Your task to perform on an android device: Clear the shopping cart on newegg.com. Search for razer blade on newegg.com, select the first entry, add it to the cart, then select checkout. Image 0: 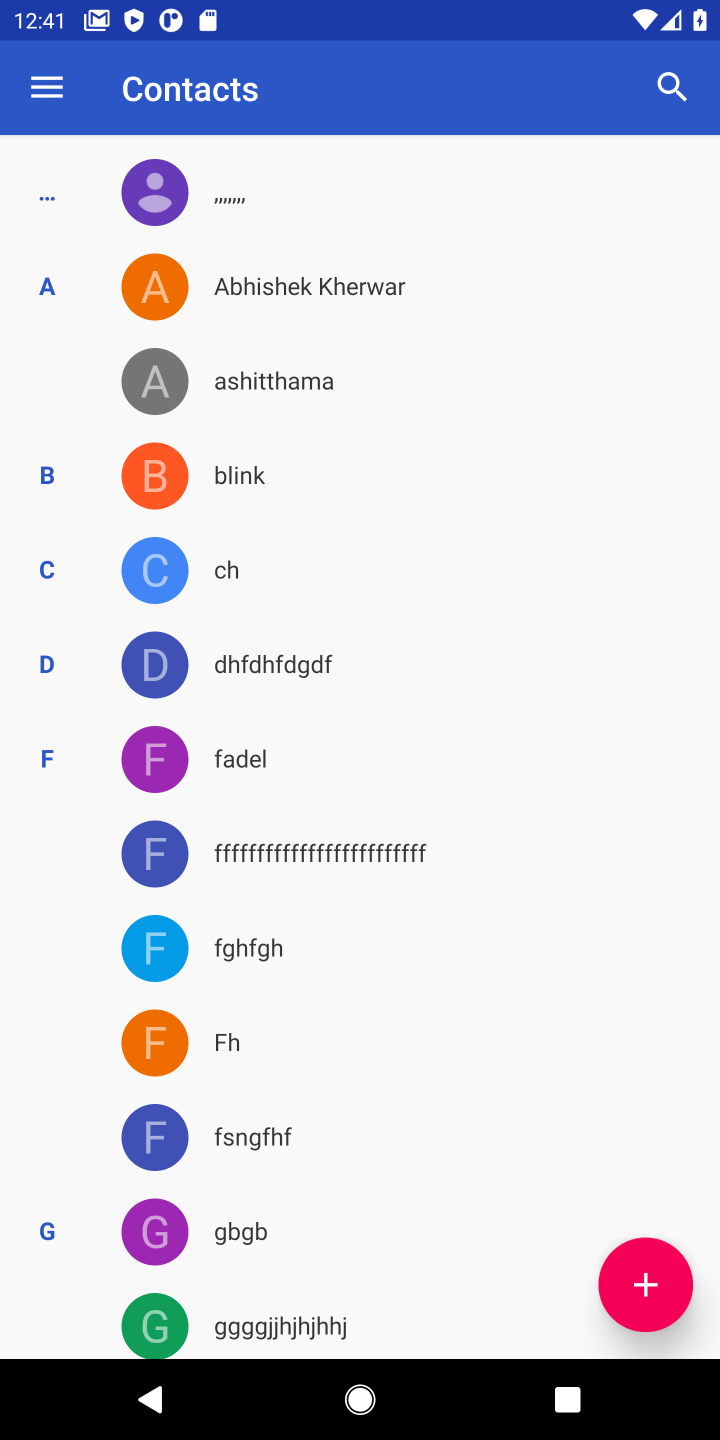
Step 0: press home button
Your task to perform on an android device: Clear the shopping cart on newegg.com. Search for razer blade on newegg.com, select the first entry, add it to the cart, then select checkout. Image 1: 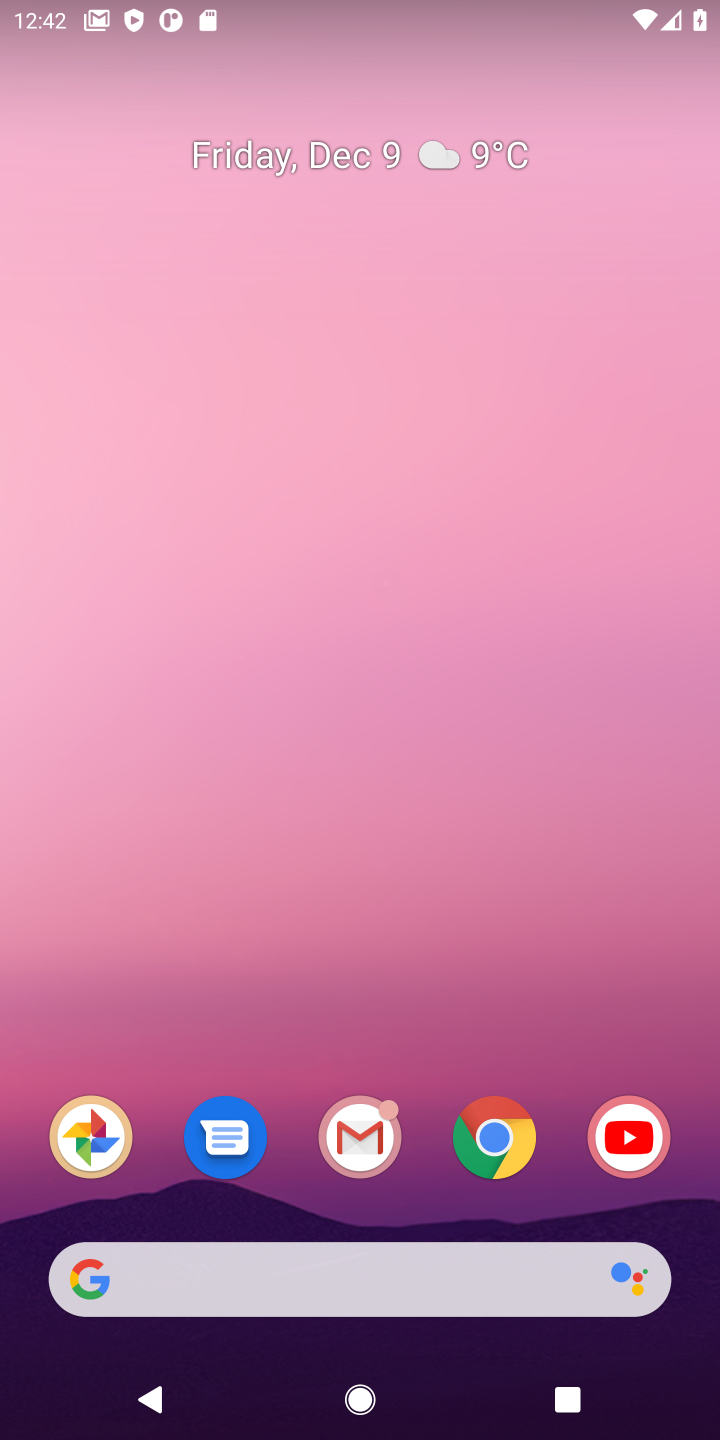
Step 1: click (305, 1278)
Your task to perform on an android device: Clear the shopping cart on newegg.com. Search for razer blade on newegg.com, select the first entry, add it to the cart, then select checkout. Image 2: 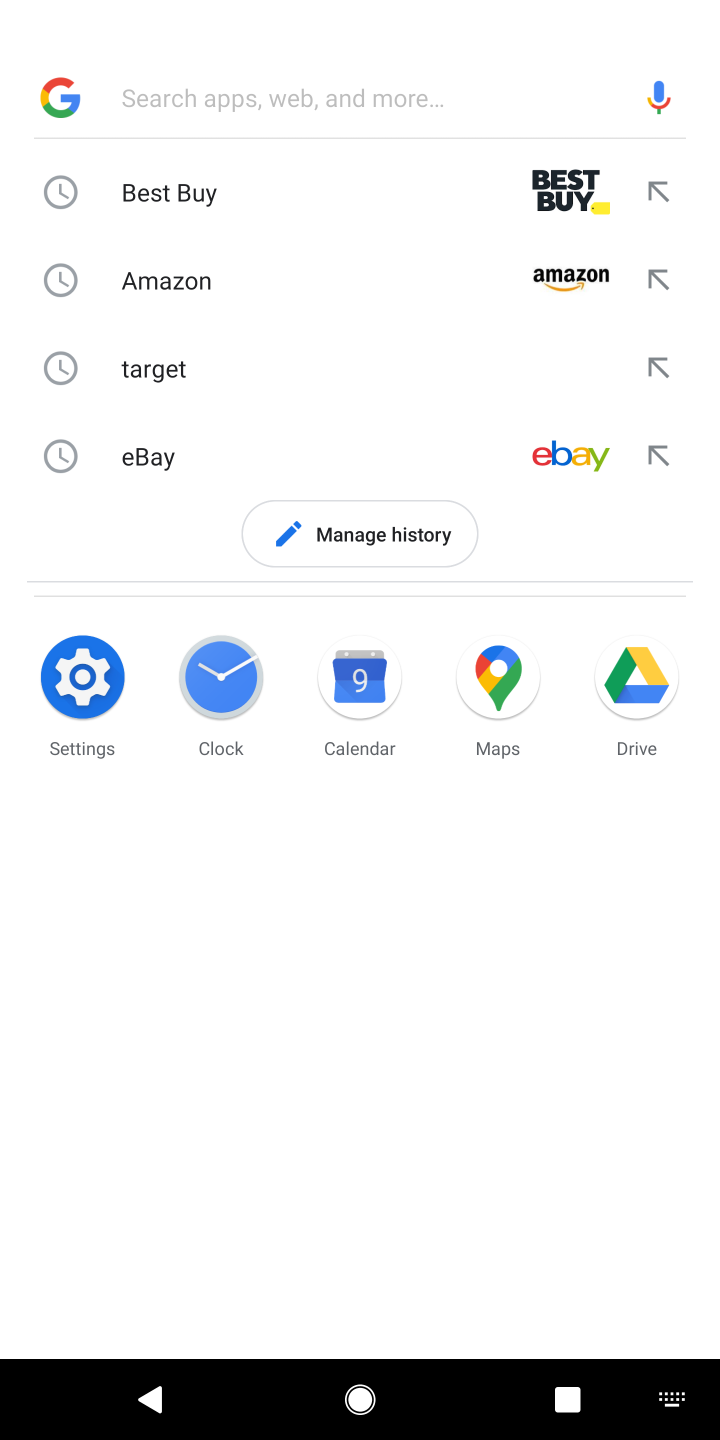
Step 2: type "newegg"
Your task to perform on an android device: Clear the shopping cart on newegg.com. Search for razer blade on newegg.com, select the first entry, add it to the cart, then select checkout. Image 3: 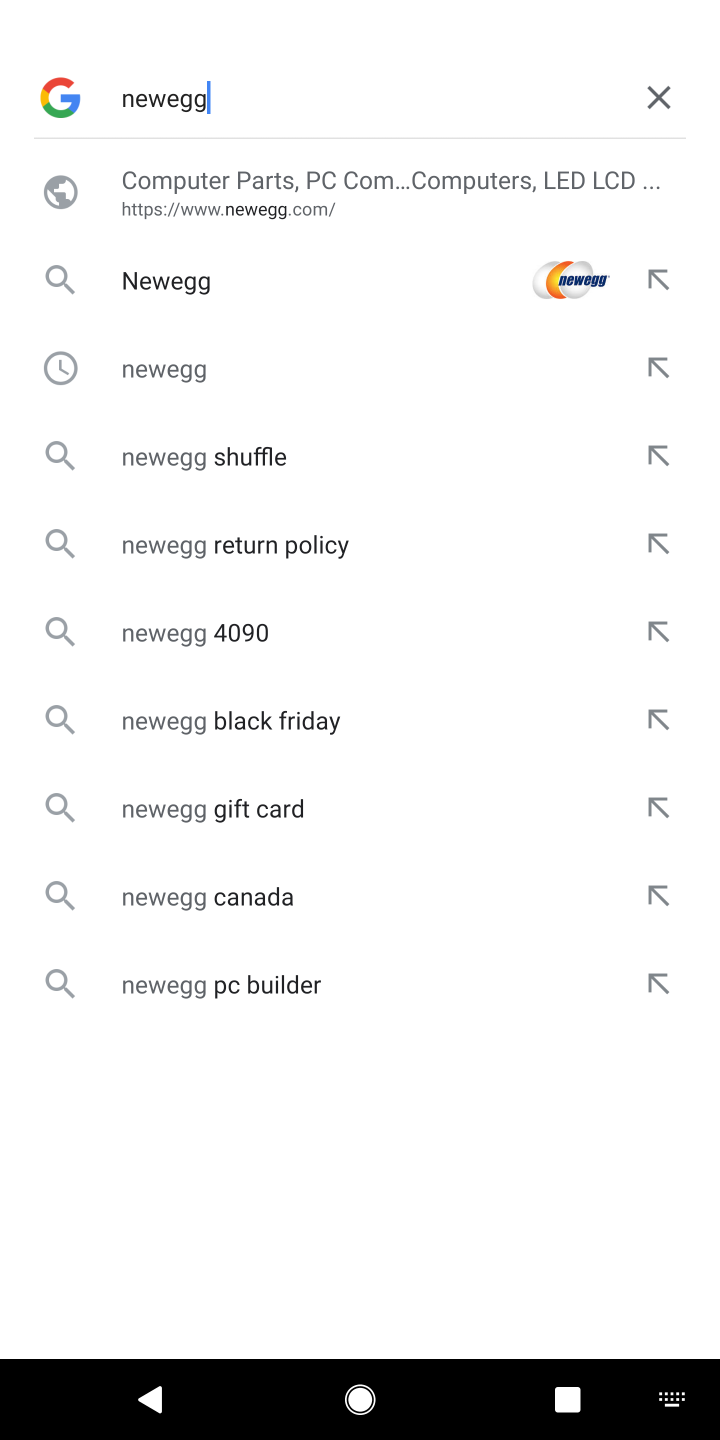
Step 3: click (188, 176)
Your task to perform on an android device: Clear the shopping cart on newegg.com. Search for razer blade on newegg.com, select the first entry, add it to the cart, then select checkout. Image 4: 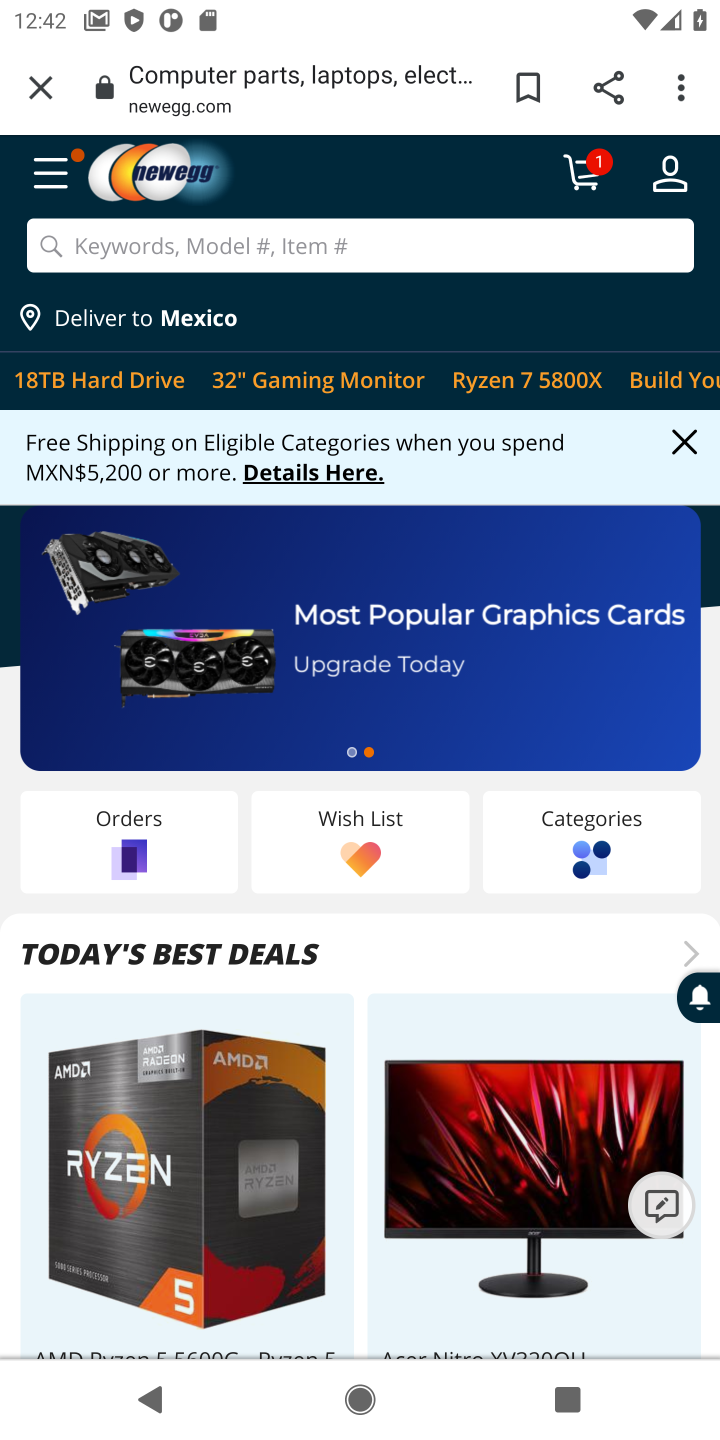
Step 4: click (412, 263)
Your task to perform on an android device: Clear the shopping cart on newegg.com. Search for razer blade on newegg.com, select the first entry, add it to the cart, then select checkout. Image 5: 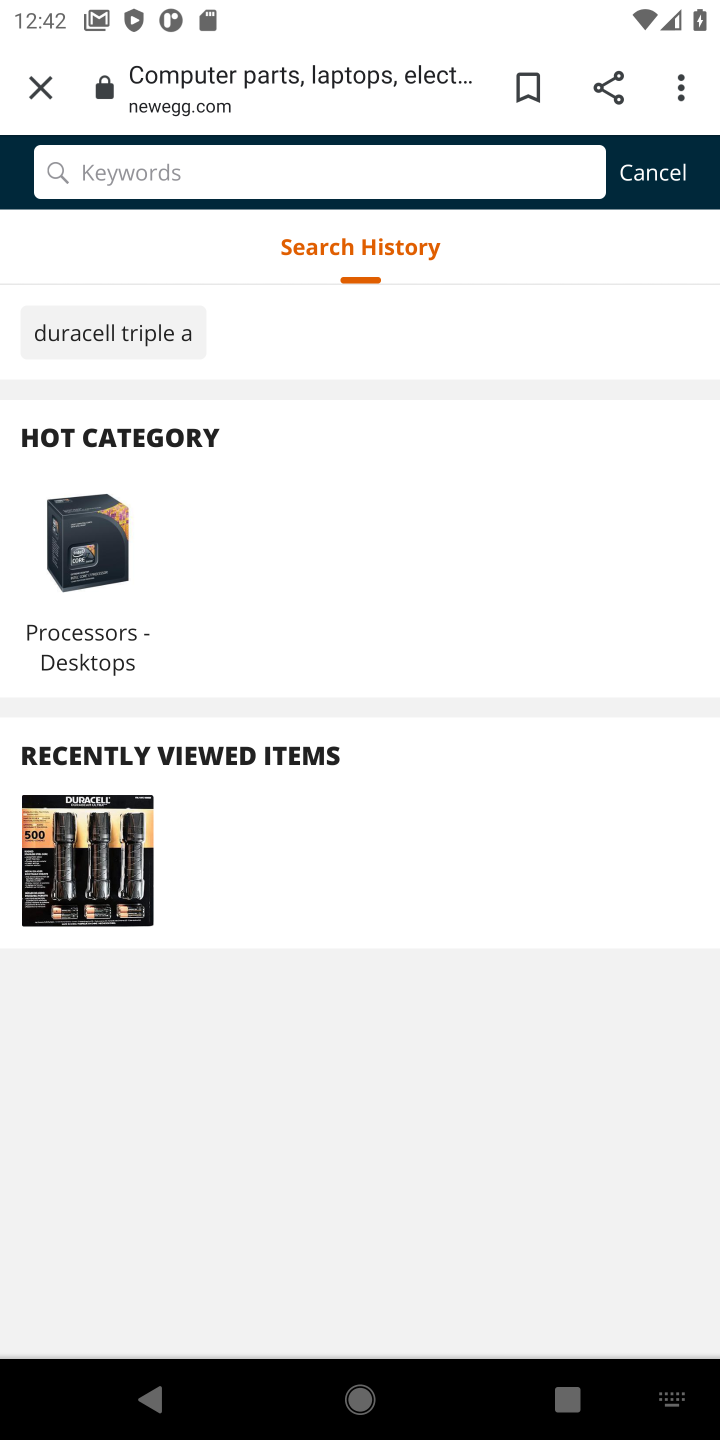
Step 5: type "razerr blade"
Your task to perform on an android device: Clear the shopping cart on newegg.com. Search for razer blade on newegg.com, select the first entry, add it to the cart, then select checkout. Image 6: 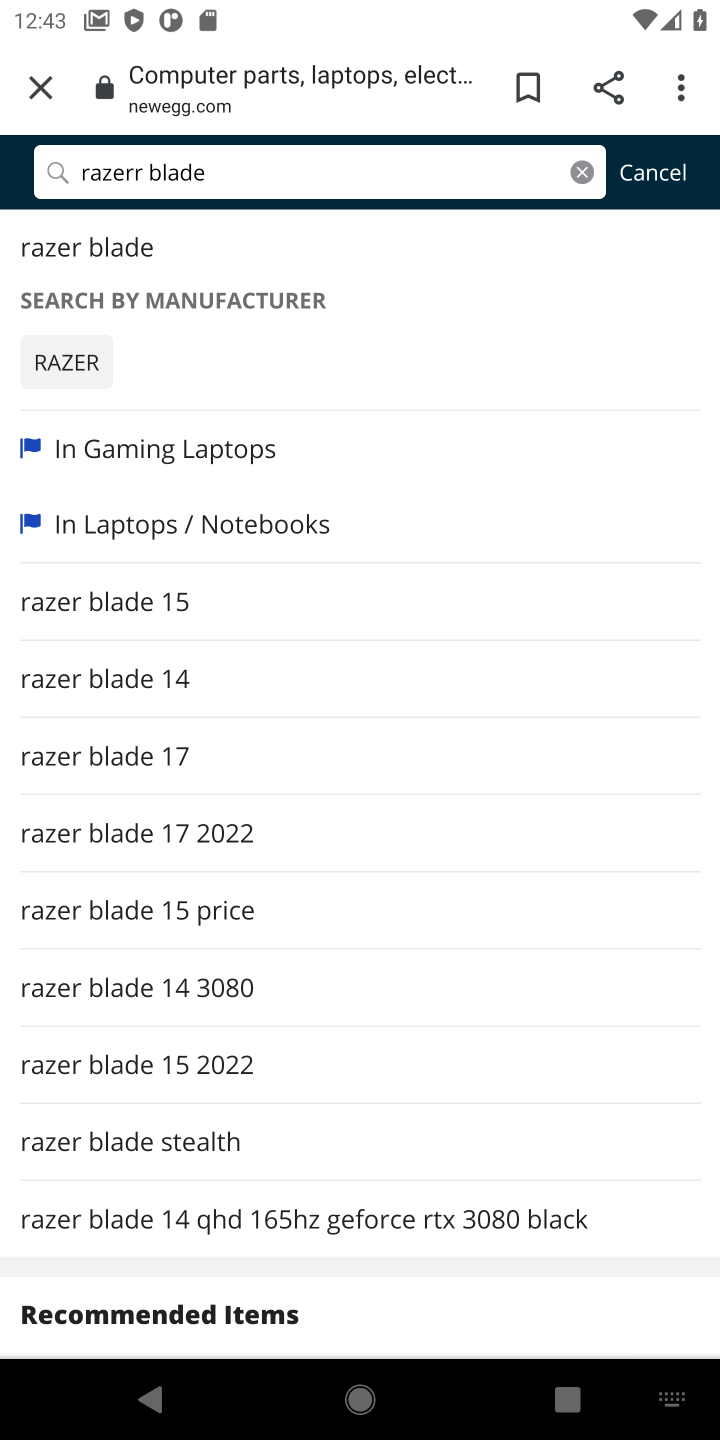
Step 6: click (172, 269)
Your task to perform on an android device: Clear the shopping cart on newegg.com. Search for razer blade on newegg.com, select the first entry, add it to the cart, then select checkout. Image 7: 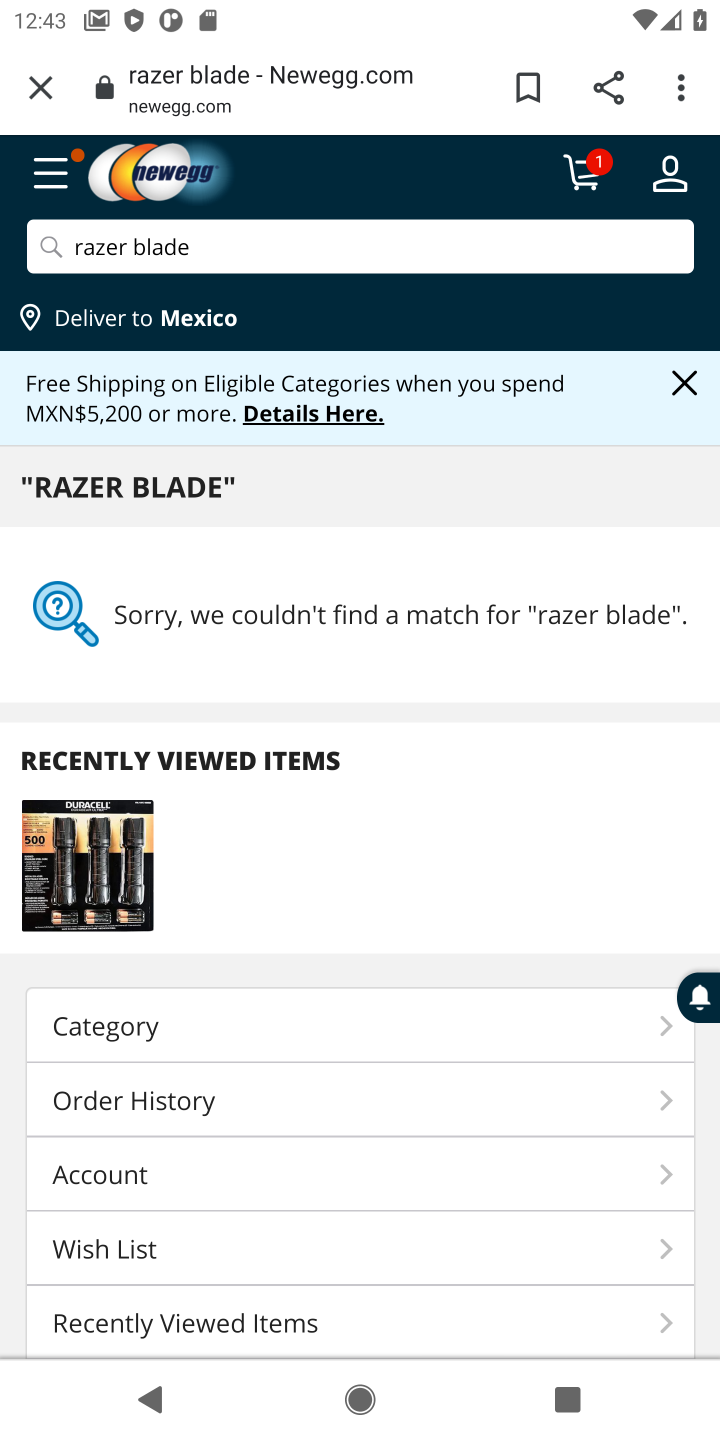
Step 7: click (98, 841)
Your task to perform on an android device: Clear the shopping cart on newegg.com. Search for razer blade on newegg.com, select the first entry, add it to the cart, then select checkout. Image 8: 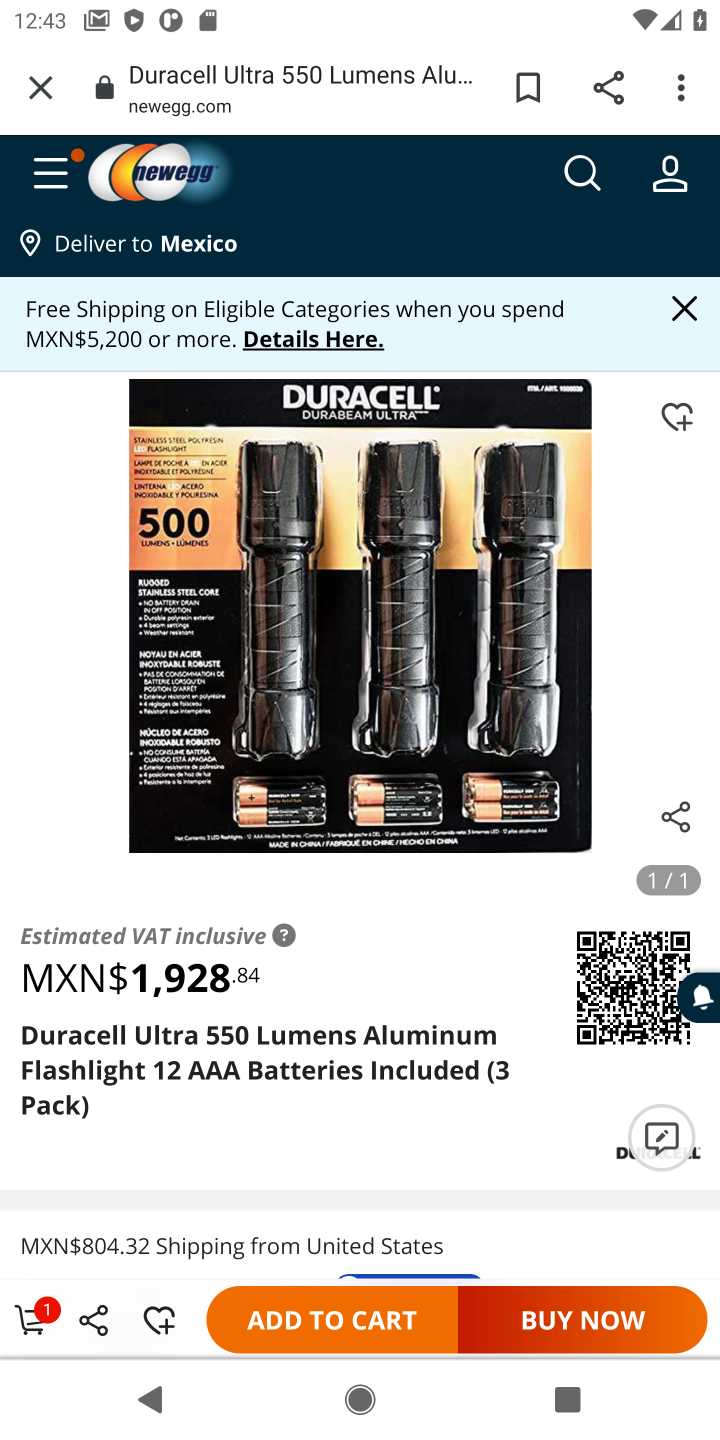
Step 8: click (317, 1324)
Your task to perform on an android device: Clear the shopping cart on newegg.com. Search for razer blade on newegg.com, select the first entry, add it to the cart, then select checkout. Image 9: 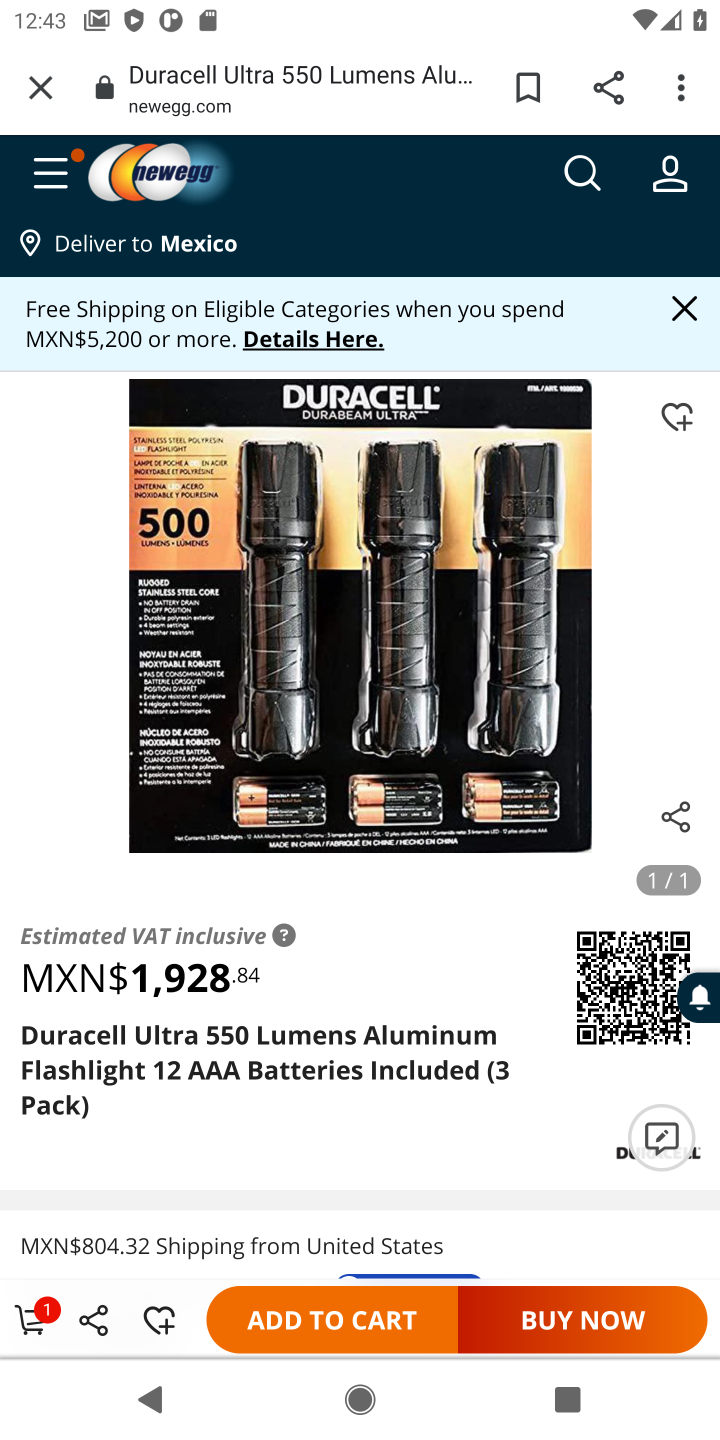
Step 9: task complete